Your task to perform on an android device: Go to Maps Image 0: 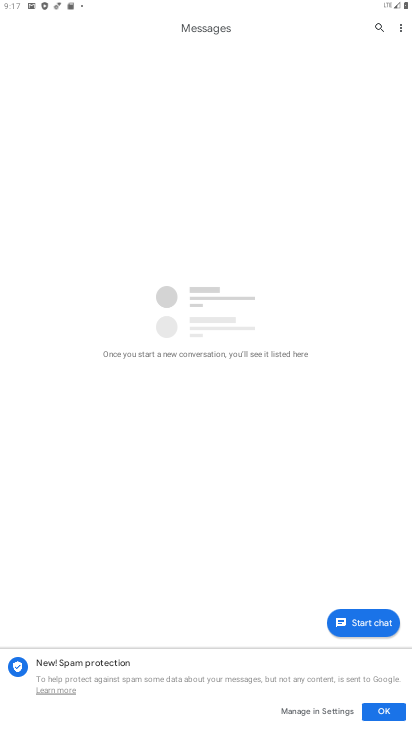
Step 0: press home button
Your task to perform on an android device: Go to Maps Image 1: 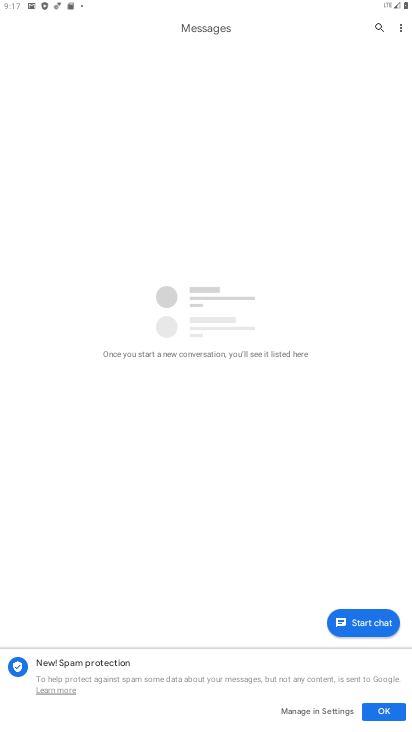
Step 1: press home button
Your task to perform on an android device: Go to Maps Image 2: 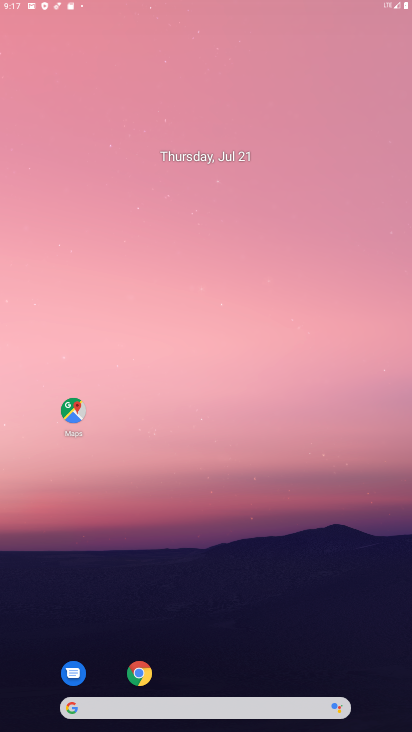
Step 2: drag from (222, 590) to (353, 143)
Your task to perform on an android device: Go to Maps Image 3: 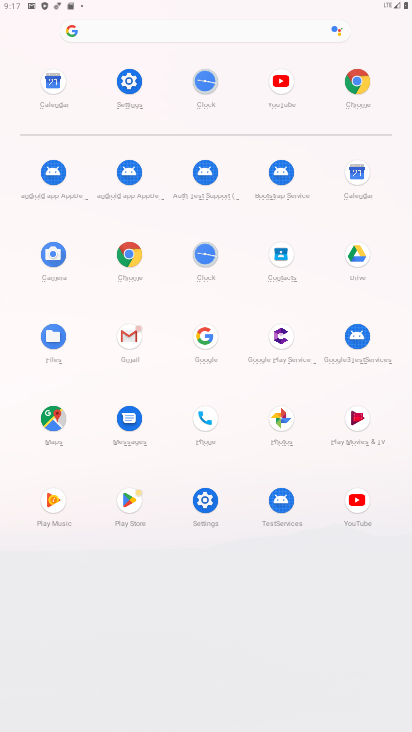
Step 3: click (47, 426)
Your task to perform on an android device: Go to Maps Image 4: 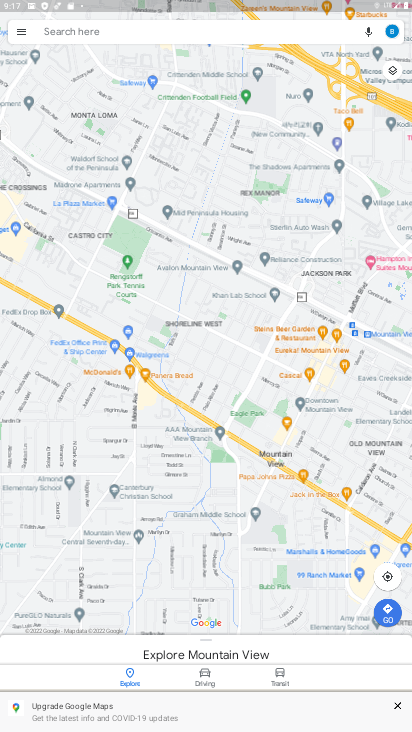
Step 4: task complete